Your task to perform on an android device: turn off javascript in the chrome app Image 0: 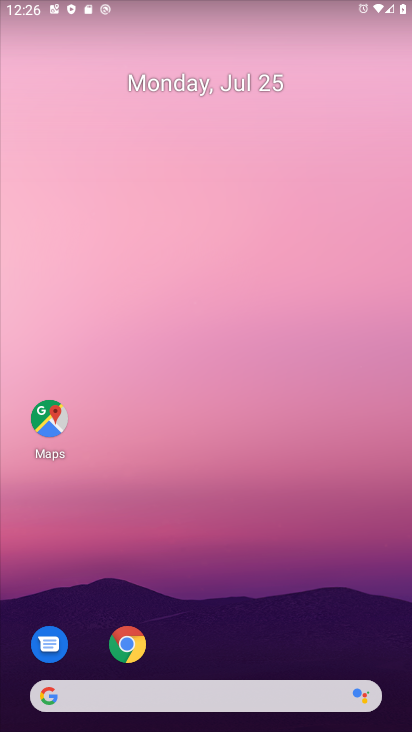
Step 0: drag from (339, 617) to (167, 90)
Your task to perform on an android device: turn off javascript in the chrome app Image 1: 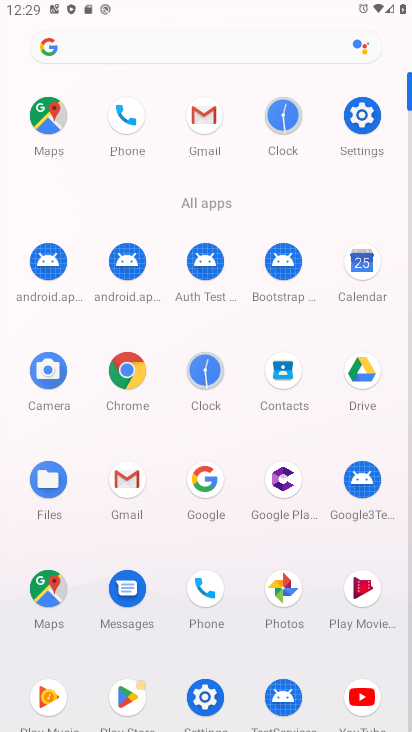
Step 1: click (136, 352)
Your task to perform on an android device: turn off javascript in the chrome app Image 2: 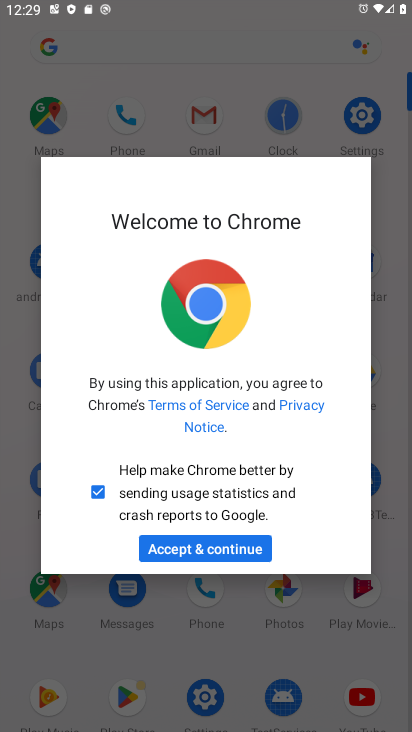
Step 2: click (199, 549)
Your task to perform on an android device: turn off javascript in the chrome app Image 3: 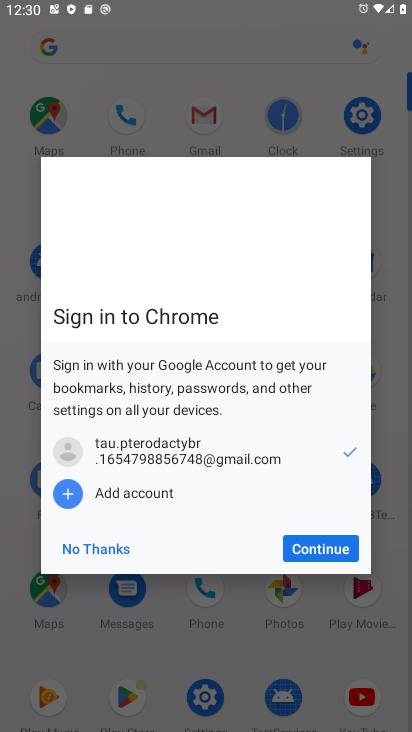
Step 3: click (315, 549)
Your task to perform on an android device: turn off javascript in the chrome app Image 4: 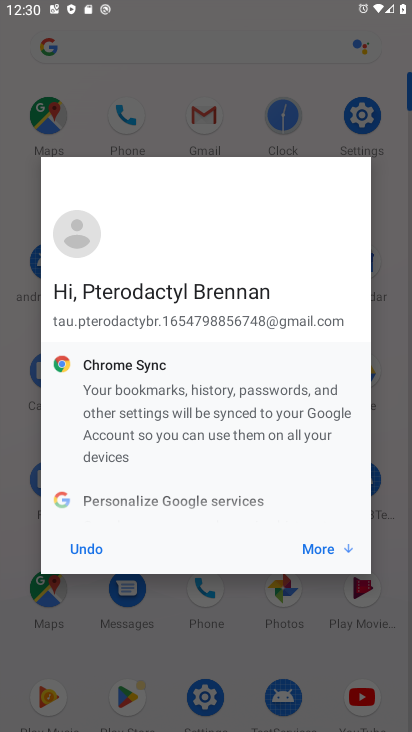
Step 4: click (316, 548)
Your task to perform on an android device: turn off javascript in the chrome app Image 5: 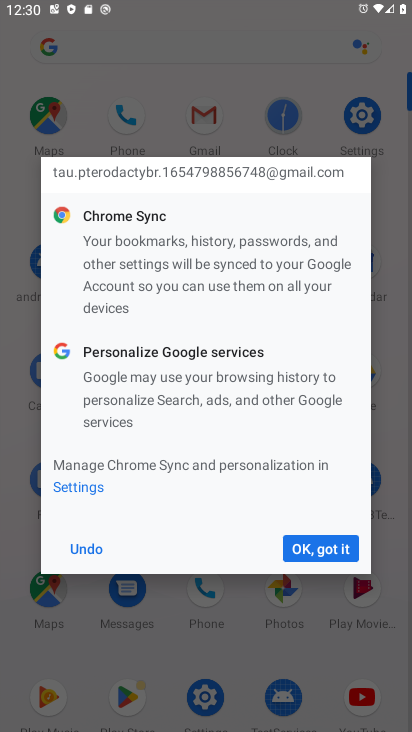
Step 5: click (316, 548)
Your task to perform on an android device: turn off javascript in the chrome app Image 6: 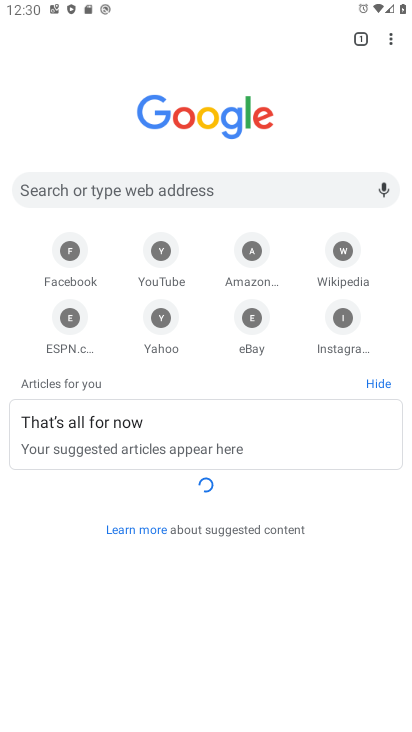
Step 6: click (386, 38)
Your task to perform on an android device: turn off javascript in the chrome app Image 7: 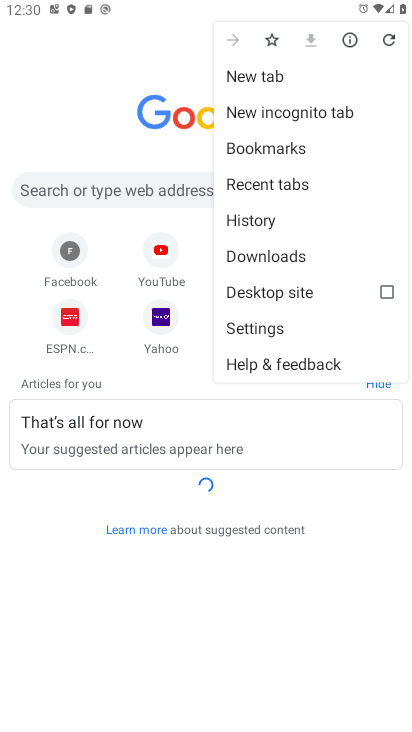
Step 7: click (292, 336)
Your task to perform on an android device: turn off javascript in the chrome app Image 8: 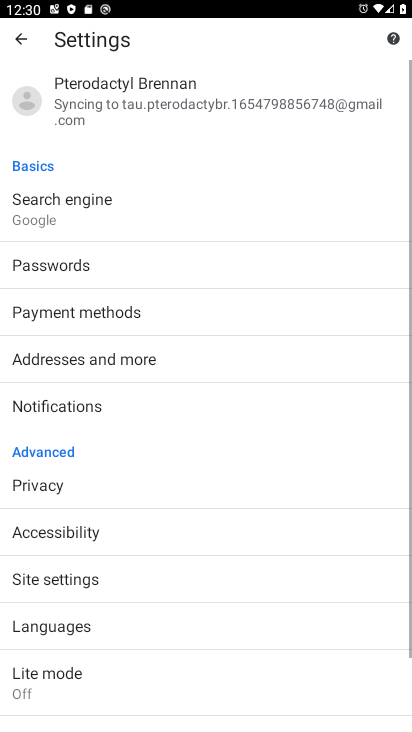
Step 8: click (44, 579)
Your task to perform on an android device: turn off javascript in the chrome app Image 9: 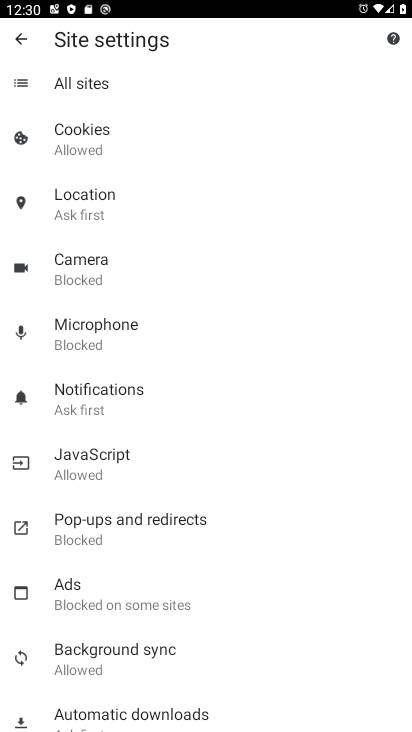
Step 9: click (135, 462)
Your task to perform on an android device: turn off javascript in the chrome app Image 10: 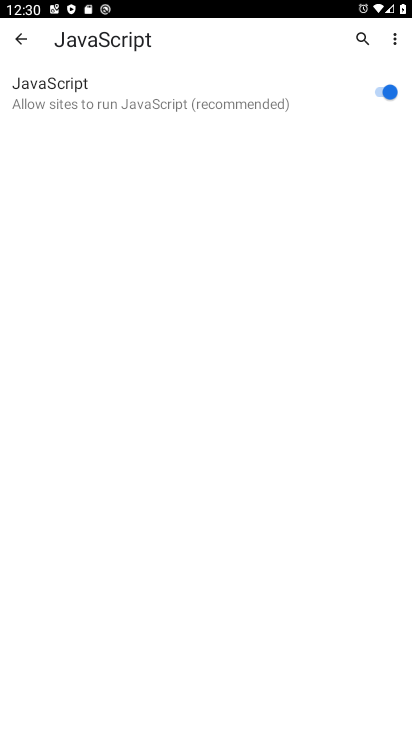
Step 10: click (367, 100)
Your task to perform on an android device: turn off javascript in the chrome app Image 11: 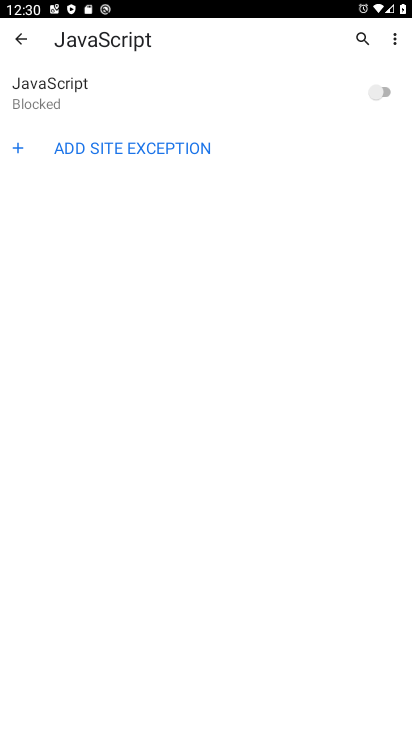
Step 11: task complete